Your task to perform on an android device: Go to Google maps Image 0: 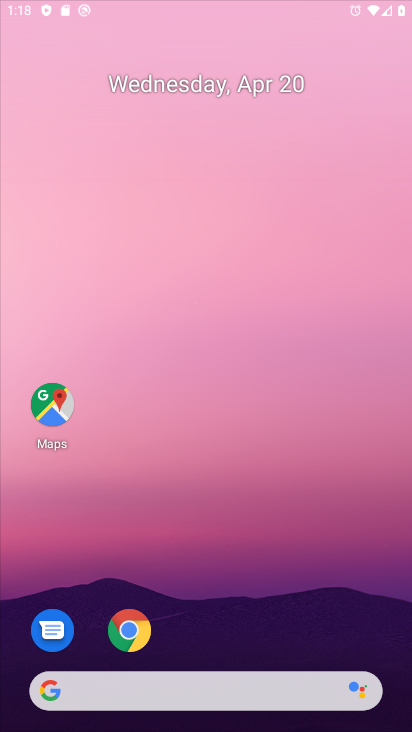
Step 0: click (128, 626)
Your task to perform on an android device: Go to Google maps Image 1: 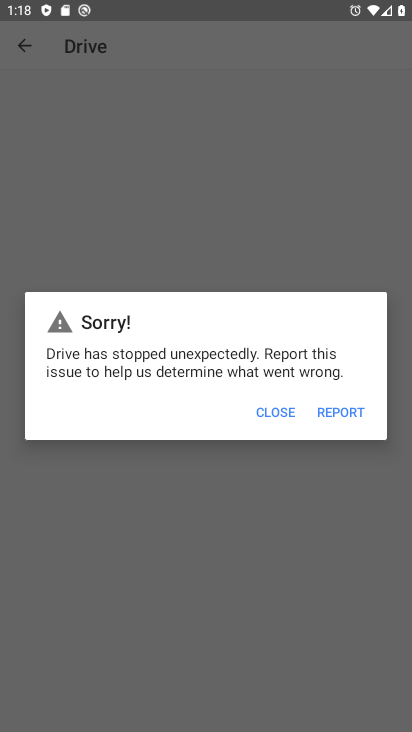
Step 1: press home button
Your task to perform on an android device: Go to Google maps Image 2: 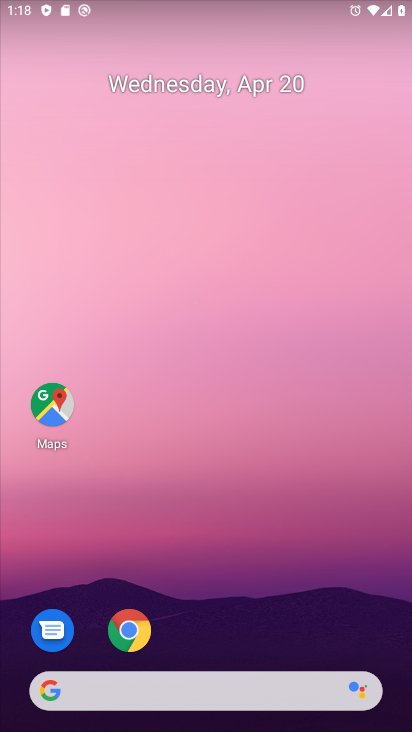
Step 2: click (56, 408)
Your task to perform on an android device: Go to Google maps Image 3: 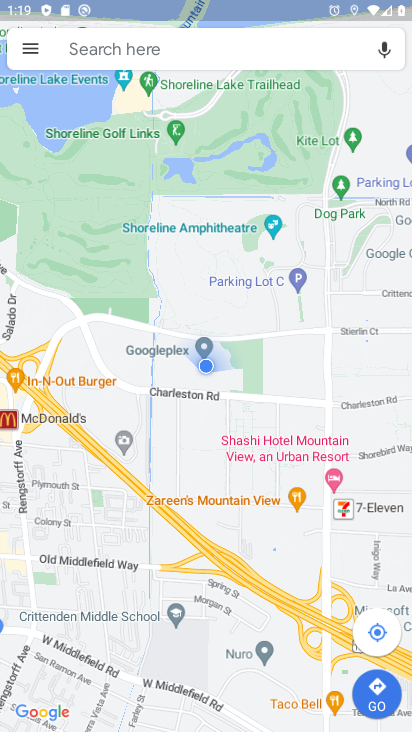
Step 3: task complete